Your task to perform on an android device: toggle data saver in the chrome app Image 0: 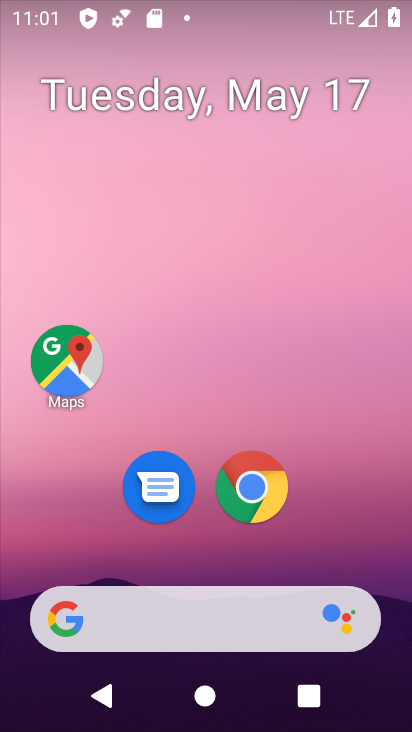
Step 0: click (247, 484)
Your task to perform on an android device: toggle data saver in the chrome app Image 1: 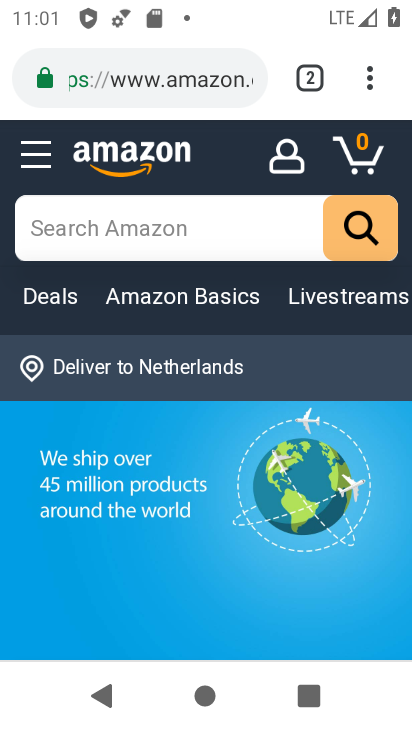
Step 1: drag from (369, 58) to (88, 578)
Your task to perform on an android device: toggle data saver in the chrome app Image 2: 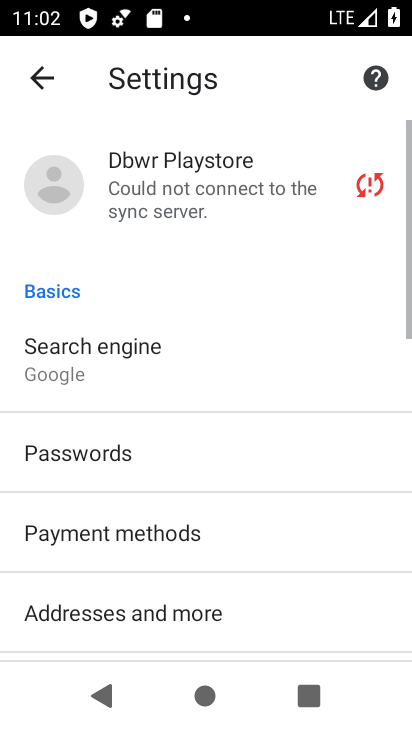
Step 2: drag from (131, 543) to (173, 333)
Your task to perform on an android device: toggle data saver in the chrome app Image 3: 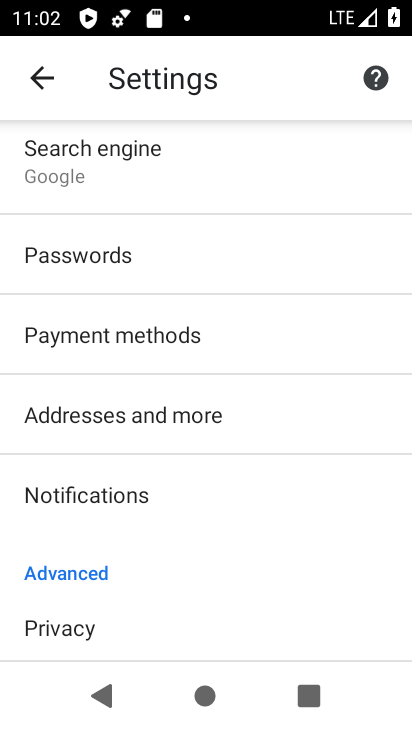
Step 3: drag from (157, 615) to (172, 348)
Your task to perform on an android device: toggle data saver in the chrome app Image 4: 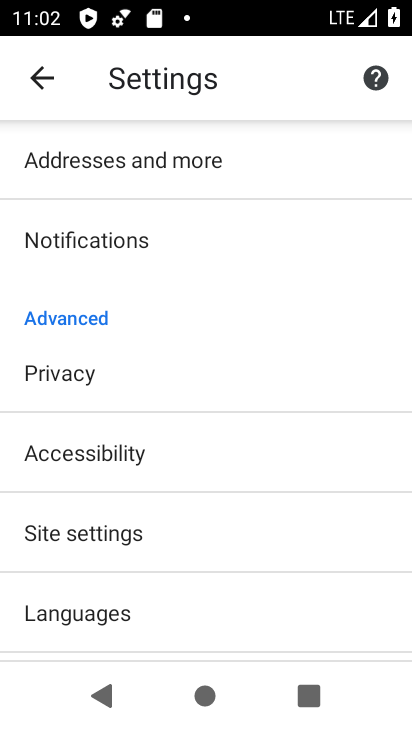
Step 4: drag from (159, 533) to (264, 379)
Your task to perform on an android device: toggle data saver in the chrome app Image 5: 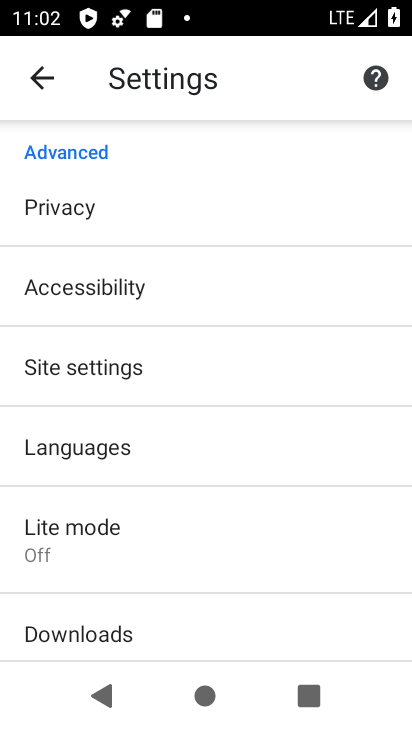
Step 5: click (102, 539)
Your task to perform on an android device: toggle data saver in the chrome app Image 6: 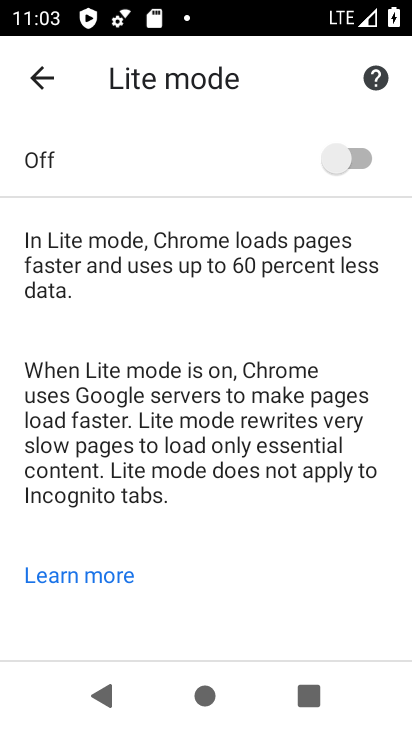
Step 6: click (347, 160)
Your task to perform on an android device: toggle data saver in the chrome app Image 7: 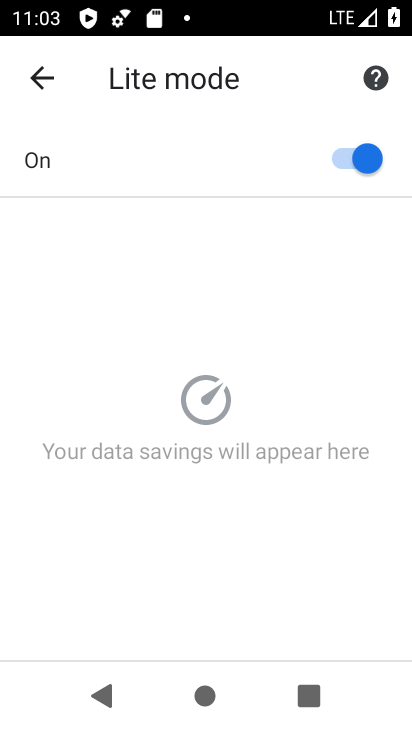
Step 7: task complete